Your task to perform on an android device: Open the map Image 0: 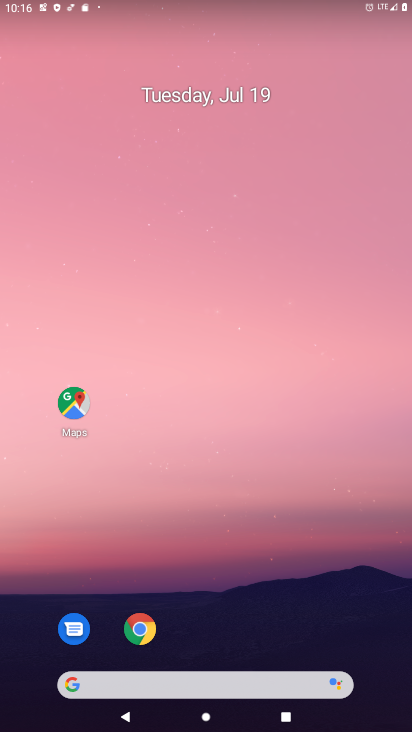
Step 0: drag from (218, 630) to (196, 61)
Your task to perform on an android device: Open the map Image 1: 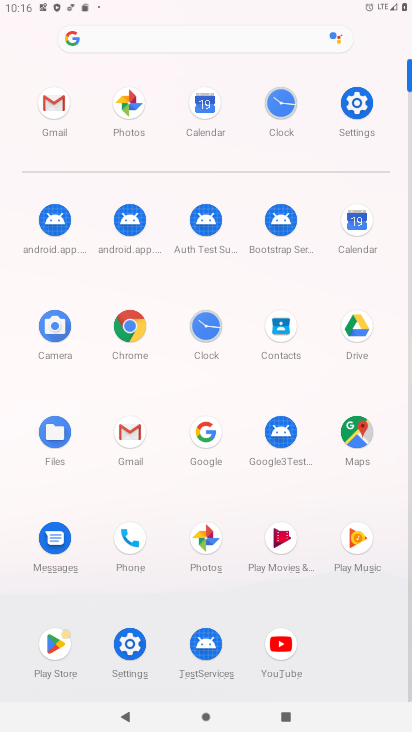
Step 1: click (357, 440)
Your task to perform on an android device: Open the map Image 2: 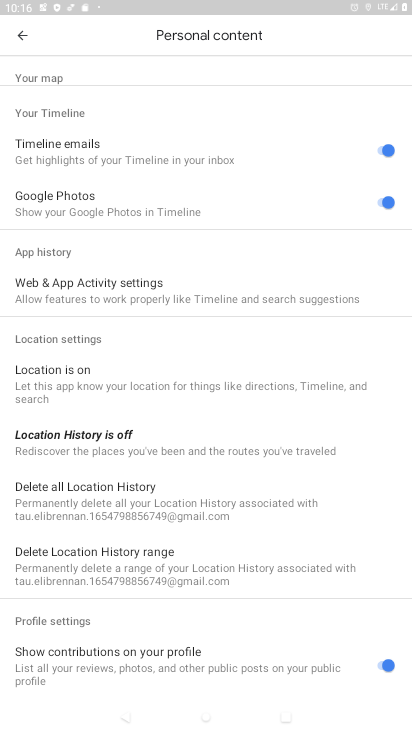
Step 2: click (22, 32)
Your task to perform on an android device: Open the map Image 3: 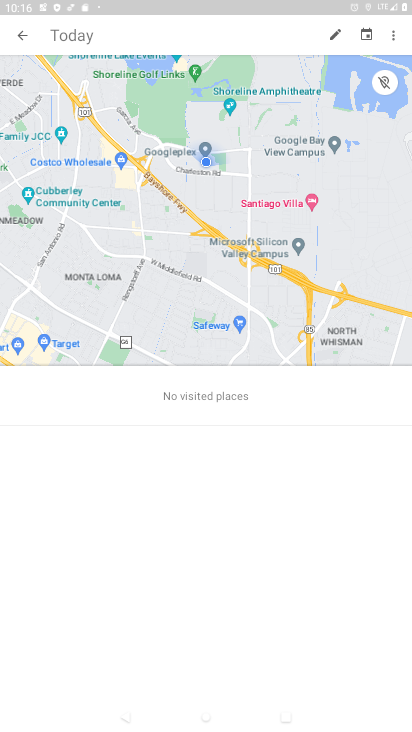
Step 3: click (28, 32)
Your task to perform on an android device: Open the map Image 4: 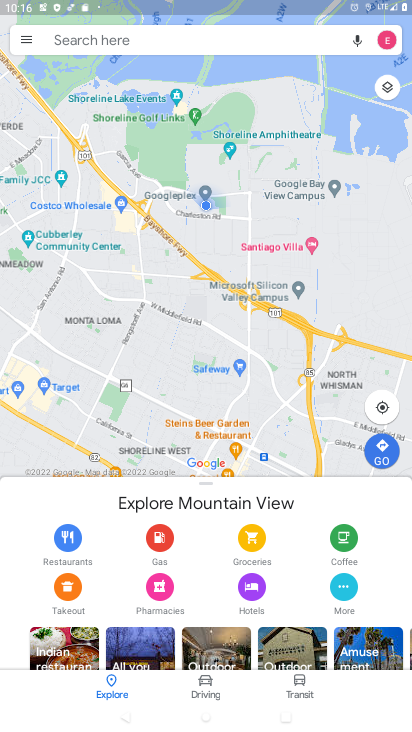
Step 4: task complete